Your task to perform on an android device: Turn on the flashlight Image 0: 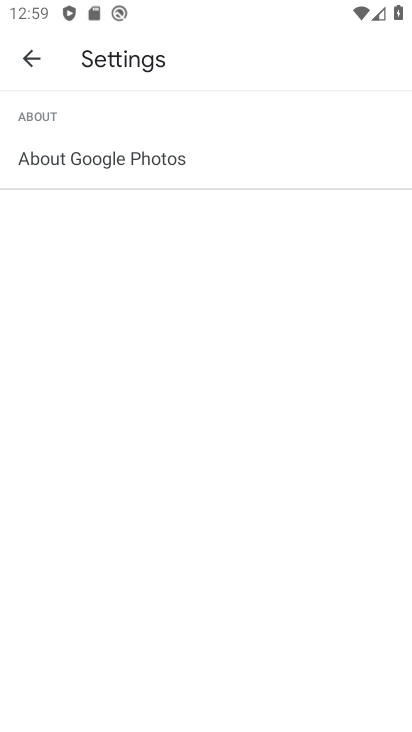
Step 0: press back button
Your task to perform on an android device: Turn on the flashlight Image 1: 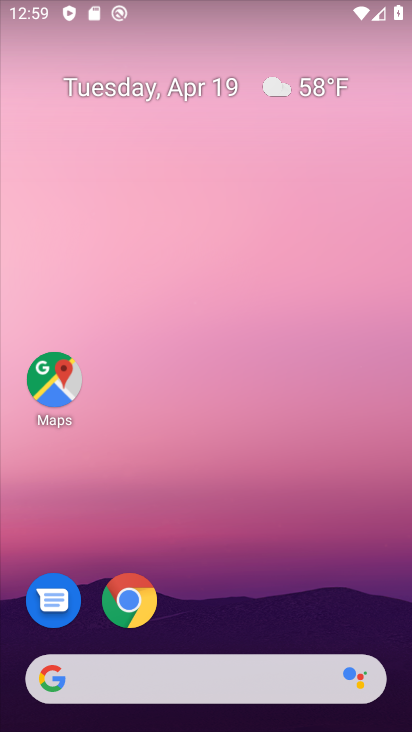
Step 1: task complete